Your task to perform on an android device: add a contact in the contacts app Image 0: 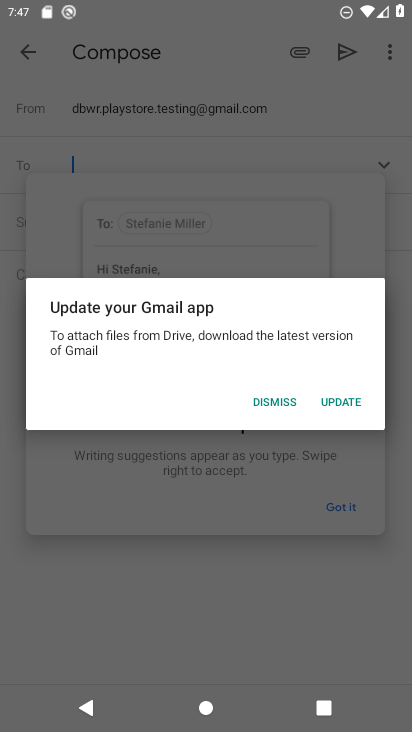
Step 0: press back button
Your task to perform on an android device: add a contact in the contacts app Image 1: 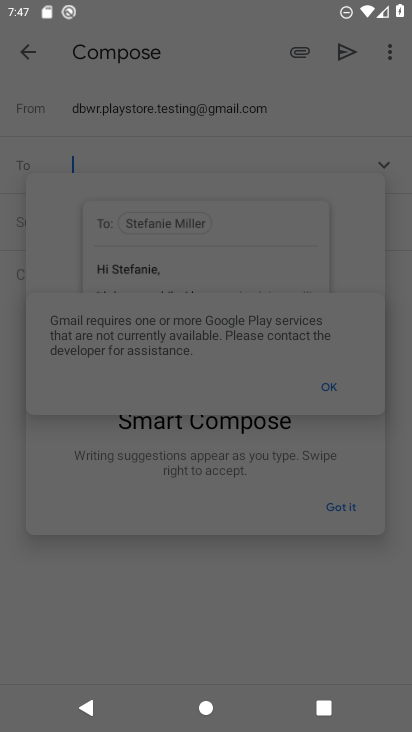
Step 1: press home button
Your task to perform on an android device: add a contact in the contacts app Image 2: 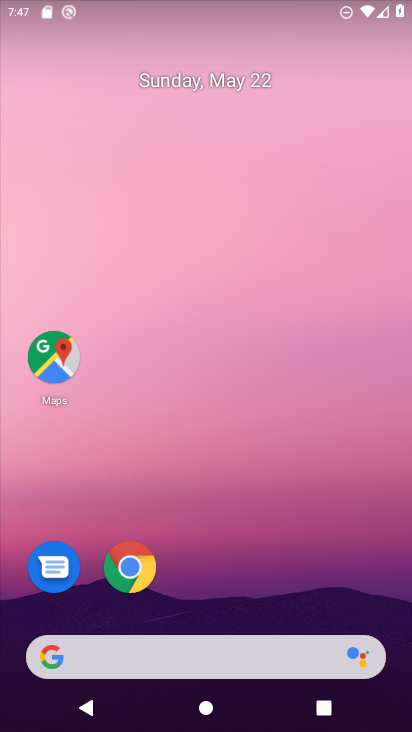
Step 2: drag from (220, 578) to (266, 207)
Your task to perform on an android device: add a contact in the contacts app Image 3: 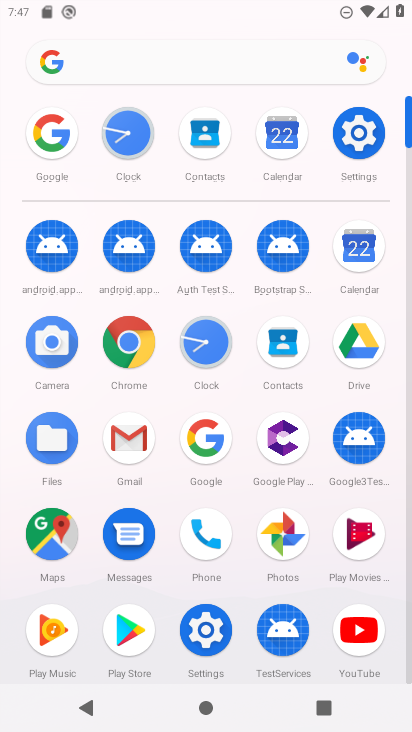
Step 3: click (278, 341)
Your task to perform on an android device: add a contact in the contacts app Image 4: 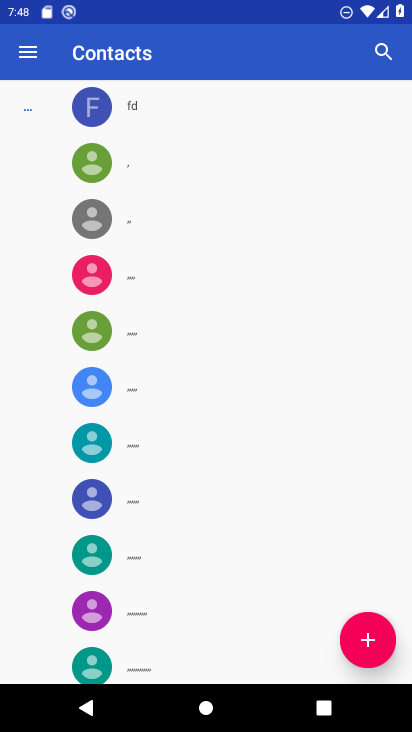
Step 4: click (360, 643)
Your task to perform on an android device: add a contact in the contacts app Image 5: 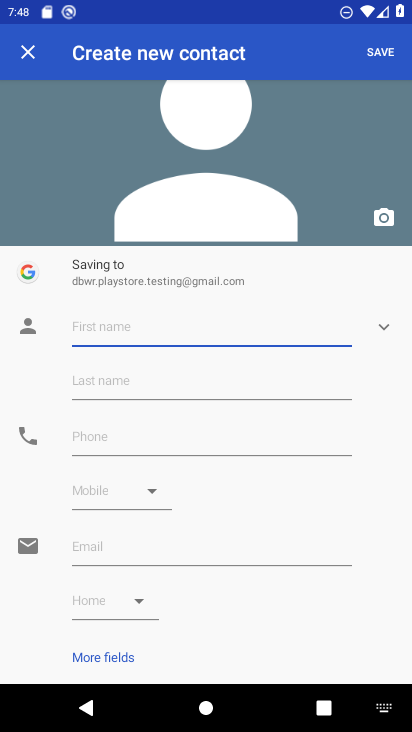
Step 5: click (67, 317)
Your task to perform on an android device: add a contact in the contacts app Image 6: 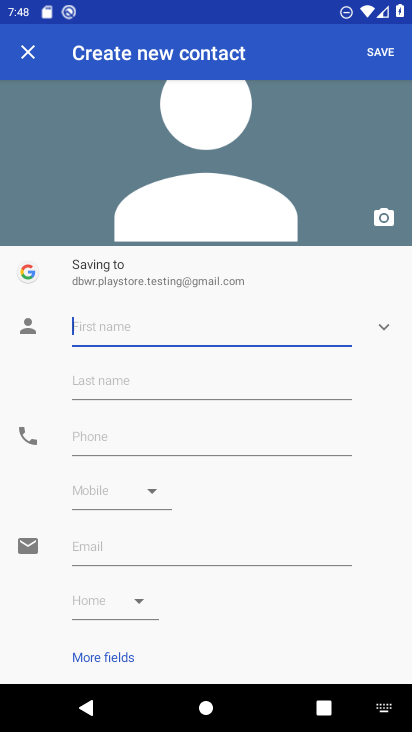
Step 6: type "cgcg"
Your task to perform on an android device: add a contact in the contacts app Image 7: 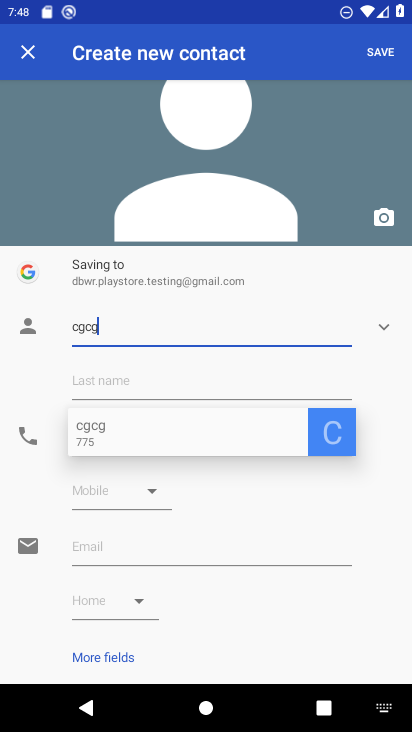
Step 7: click (87, 439)
Your task to perform on an android device: add a contact in the contacts app Image 8: 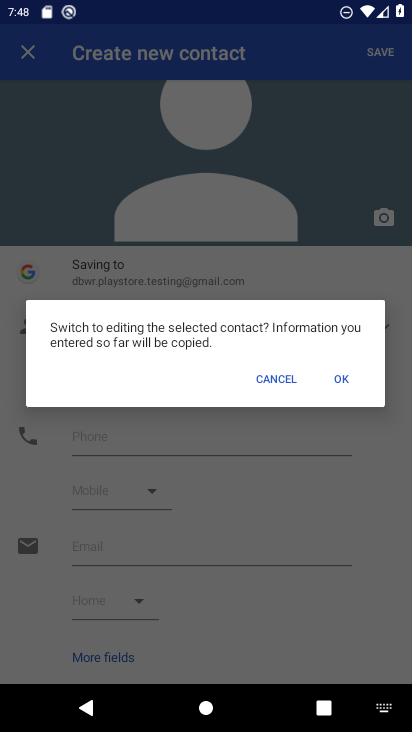
Step 8: click (342, 376)
Your task to perform on an android device: add a contact in the contacts app Image 9: 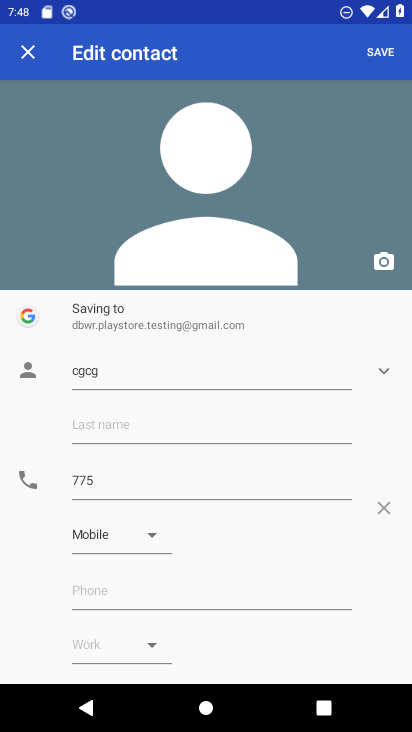
Step 9: click (383, 49)
Your task to perform on an android device: add a contact in the contacts app Image 10: 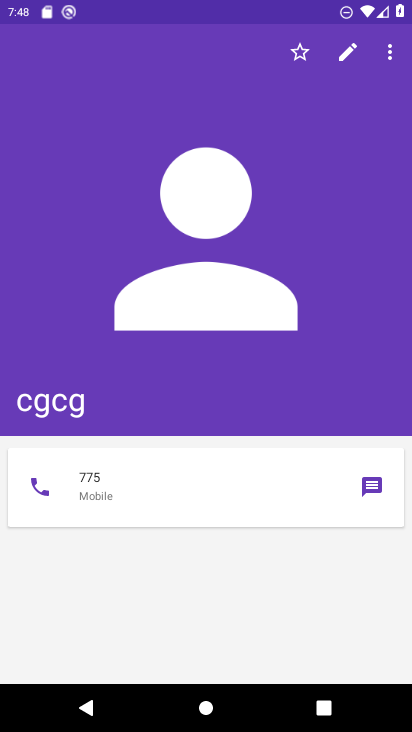
Step 10: task complete